Your task to perform on an android device: Open calendar and show me the second week of next month Image 0: 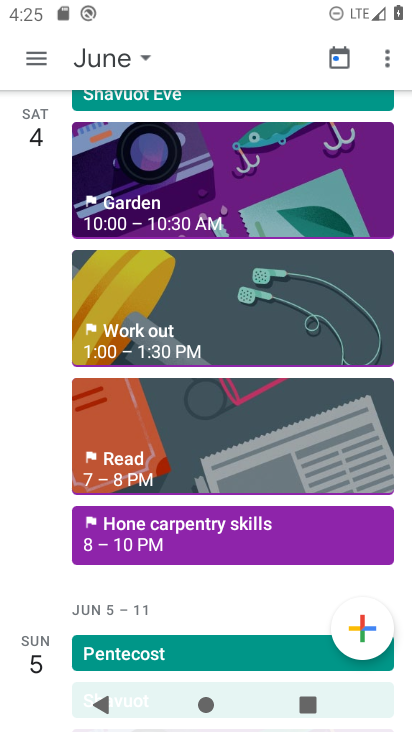
Step 0: press home button
Your task to perform on an android device: Open calendar and show me the second week of next month Image 1: 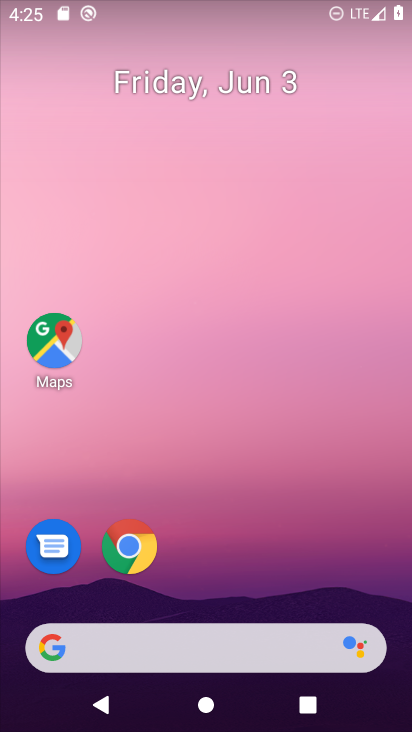
Step 1: drag from (224, 522) to (263, 19)
Your task to perform on an android device: Open calendar and show me the second week of next month Image 2: 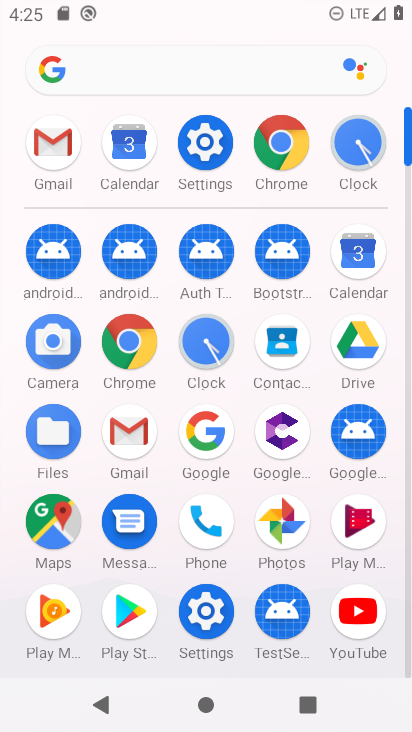
Step 2: click (349, 236)
Your task to perform on an android device: Open calendar and show me the second week of next month Image 3: 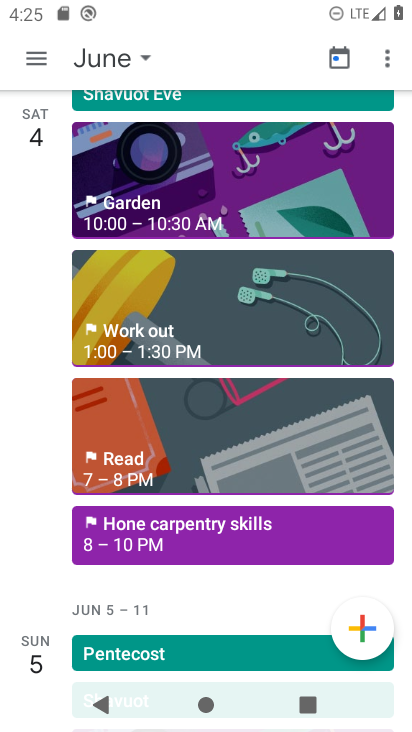
Step 3: click (39, 52)
Your task to perform on an android device: Open calendar and show me the second week of next month Image 4: 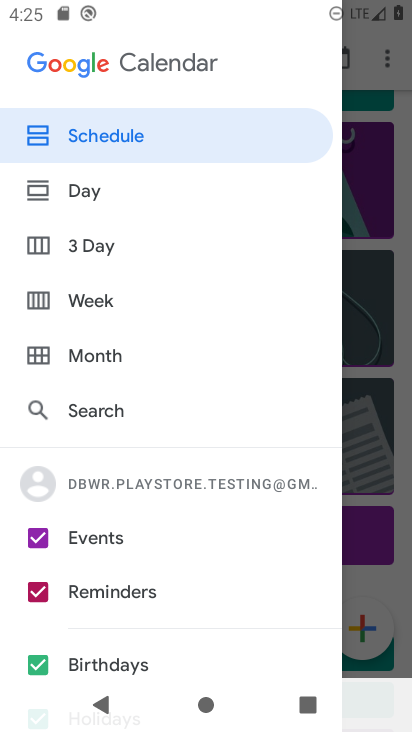
Step 4: click (75, 346)
Your task to perform on an android device: Open calendar and show me the second week of next month Image 5: 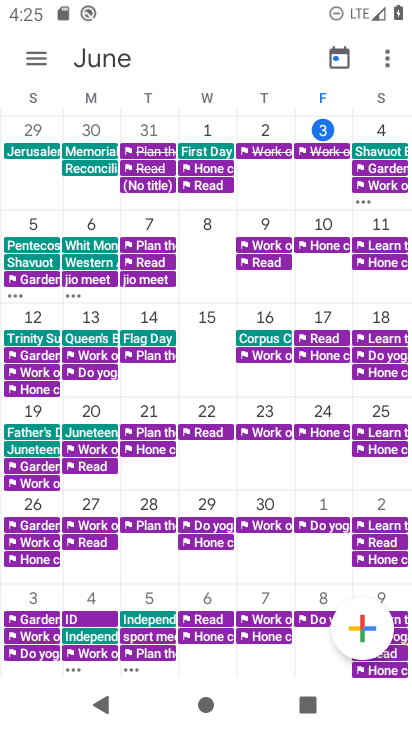
Step 5: drag from (374, 418) to (0, 329)
Your task to perform on an android device: Open calendar and show me the second week of next month Image 6: 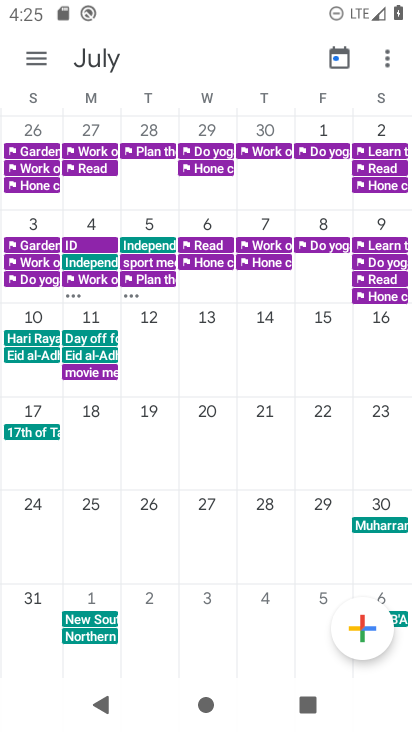
Step 6: click (48, 313)
Your task to perform on an android device: Open calendar and show me the second week of next month Image 7: 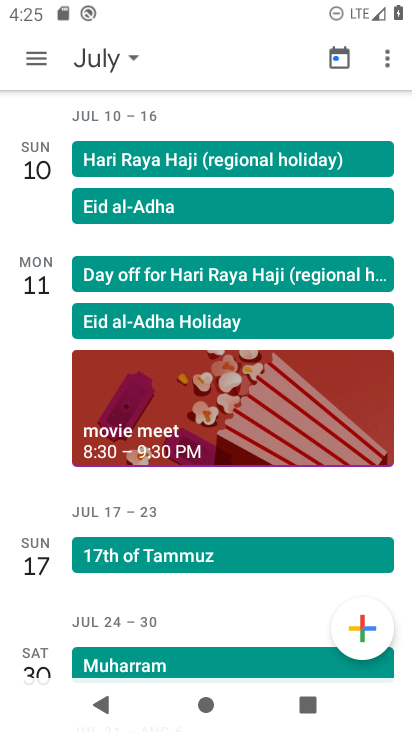
Step 7: click (34, 51)
Your task to perform on an android device: Open calendar and show me the second week of next month Image 8: 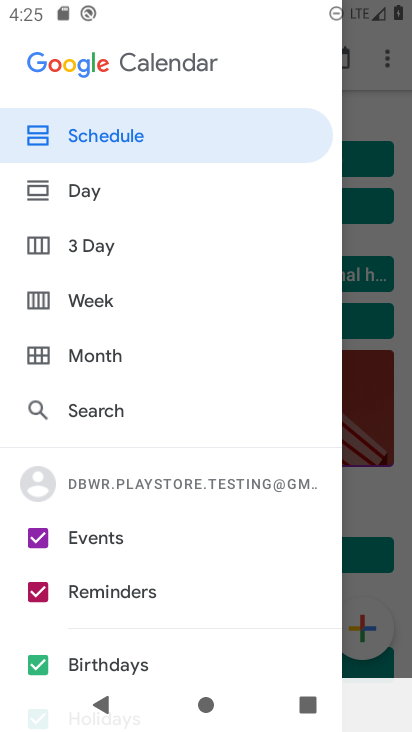
Step 8: click (48, 295)
Your task to perform on an android device: Open calendar and show me the second week of next month Image 9: 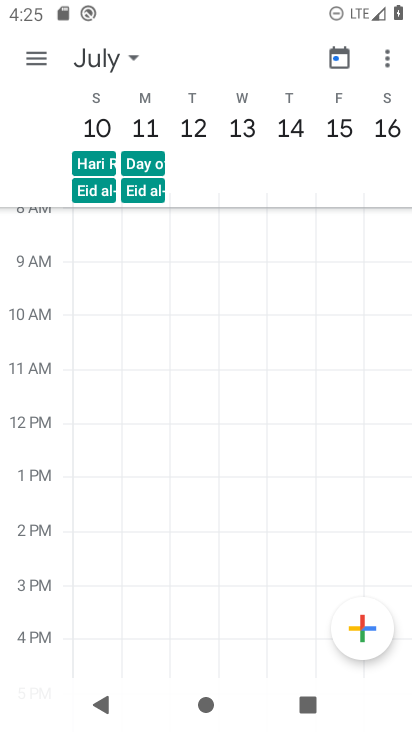
Step 9: task complete